Your task to perform on an android device: Open Yahoo.com Image 0: 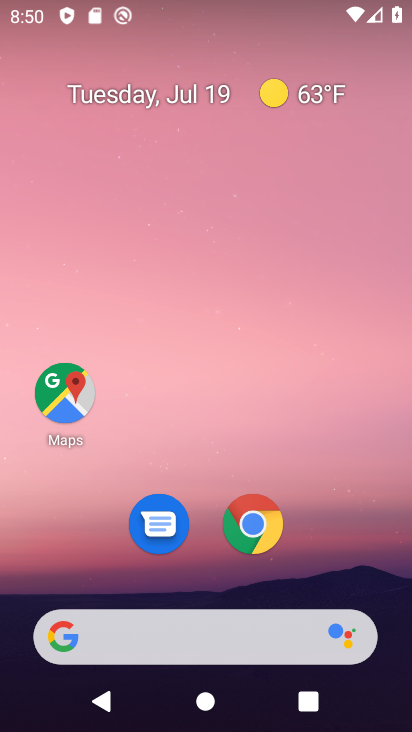
Step 0: click (250, 527)
Your task to perform on an android device: Open Yahoo.com Image 1: 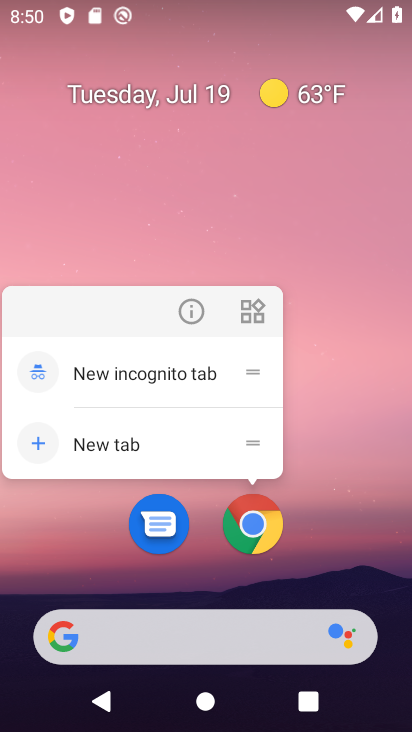
Step 1: click (250, 531)
Your task to perform on an android device: Open Yahoo.com Image 2: 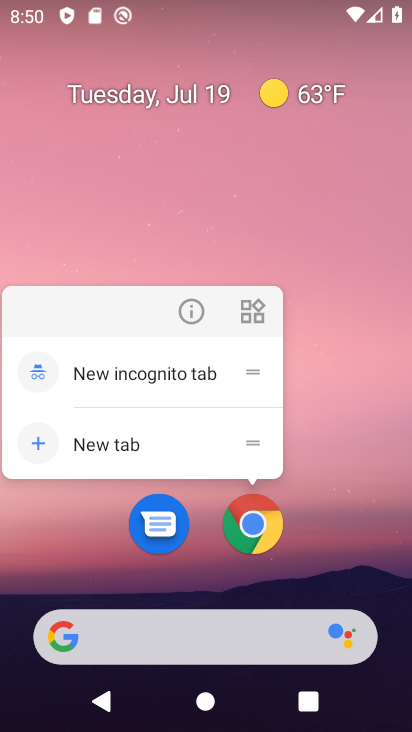
Step 2: click (263, 519)
Your task to perform on an android device: Open Yahoo.com Image 3: 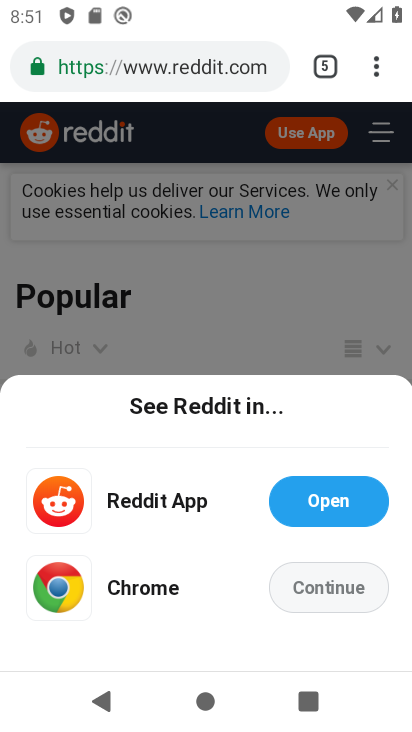
Step 3: drag from (378, 60) to (215, 126)
Your task to perform on an android device: Open Yahoo.com Image 4: 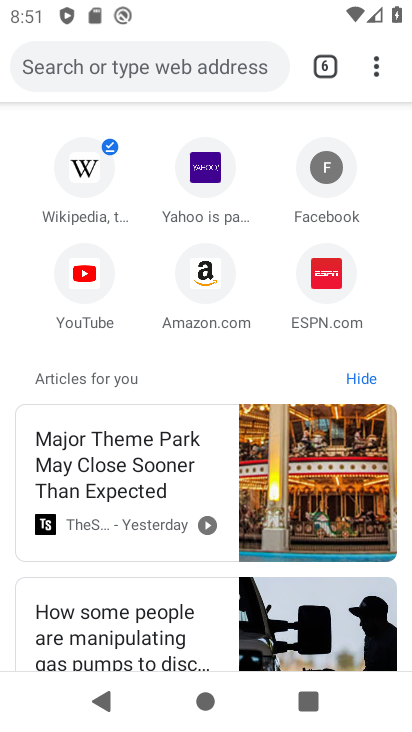
Step 4: click (200, 168)
Your task to perform on an android device: Open Yahoo.com Image 5: 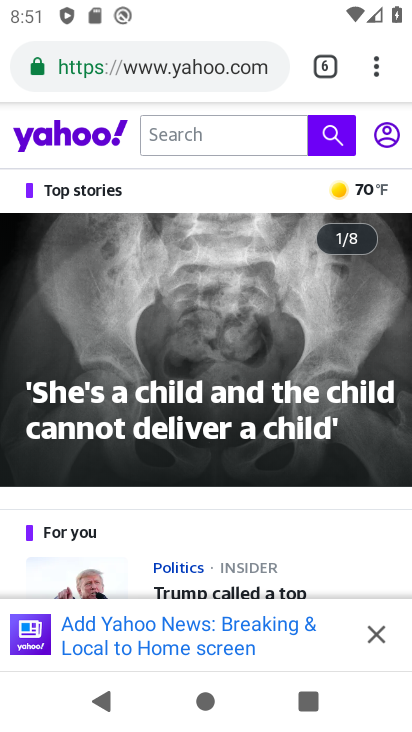
Step 5: click (379, 635)
Your task to perform on an android device: Open Yahoo.com Image 6: 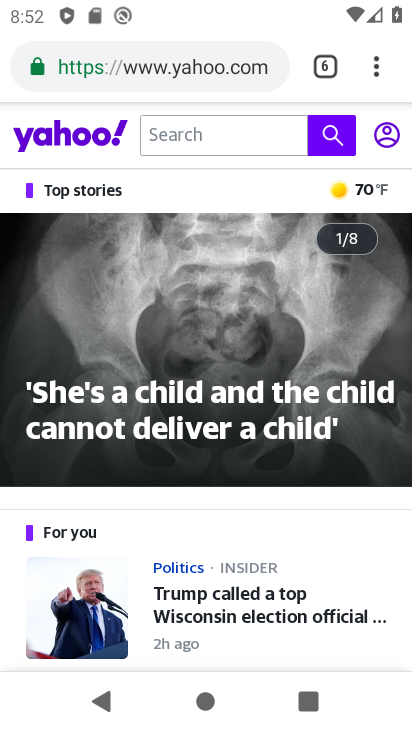
Step 6: task complete